Your task to perform on an android device: turn vacation reply on in the gmail app Image 0: 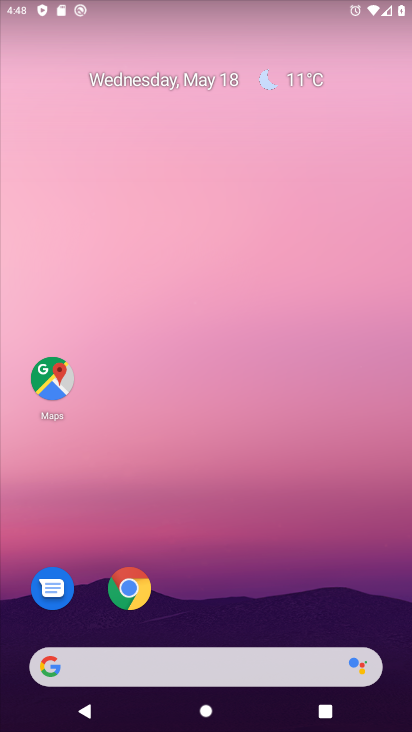
Step 0: drag from (234, 558) to (275, 68)
Your task to perform on an android device: turn vacation reply on in the gmail app Image 1: 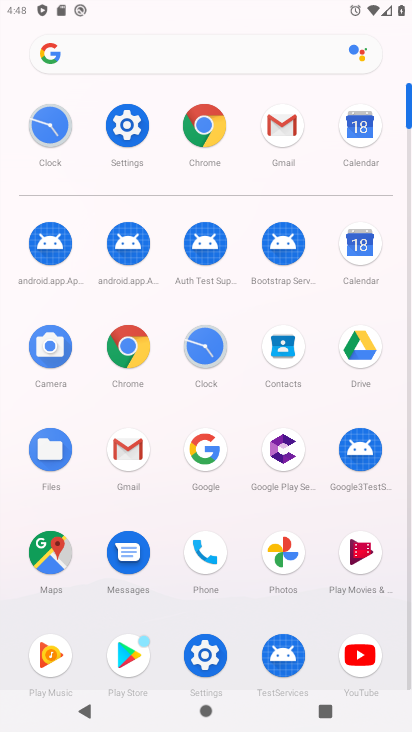
Step 1: click (122, 127)
Your task to perform on an android device: turn vacation reply on in the gmail app Image 2: 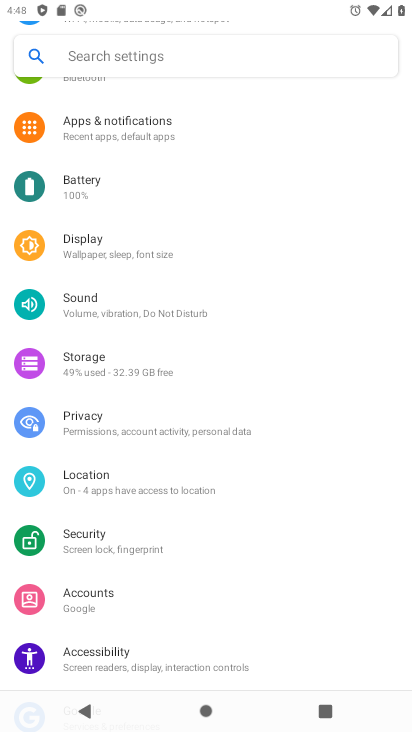
Step 2: drag from (182, 591) to (229, 223)
Your task to perform on an android device: turn vacation reply on in the gmail app Image 3: 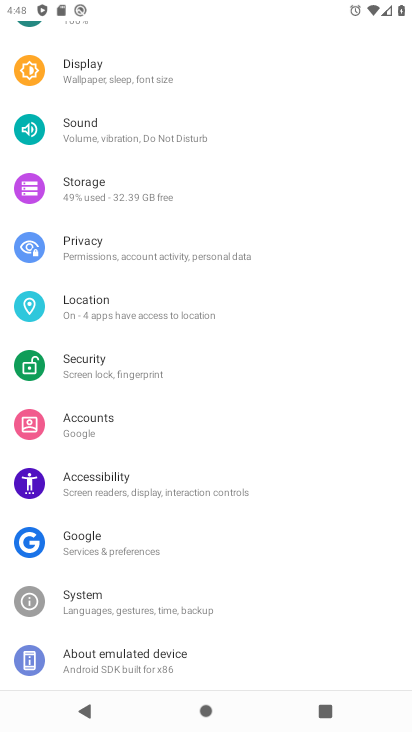
Step 3: drag from (223, 240) to (243, 611)
Your task to perform on an android device: turn vacation reply on in the gmail app Image 4: 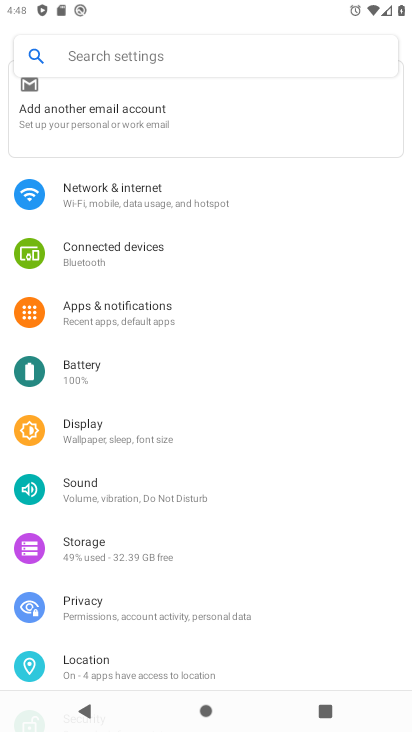
Step 4: press home button
Your task to perform on an android device: turn vacation reply on in the gmail app Image 5: 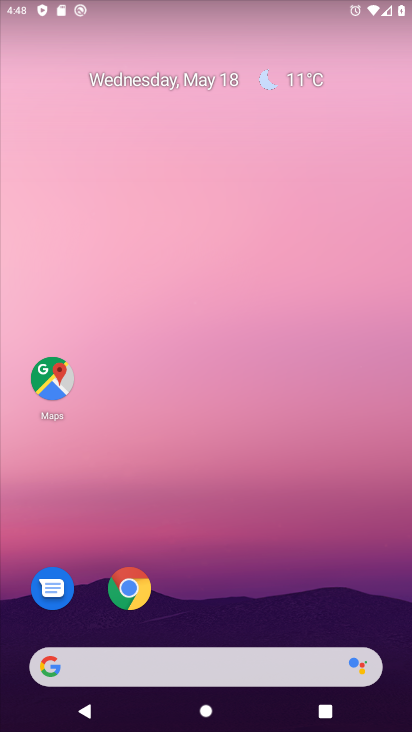
Step 5: drag from (217, 532) to (217, 84)
Your task to perform on an android device: turn vacation reply on in the gmail app Image 6: 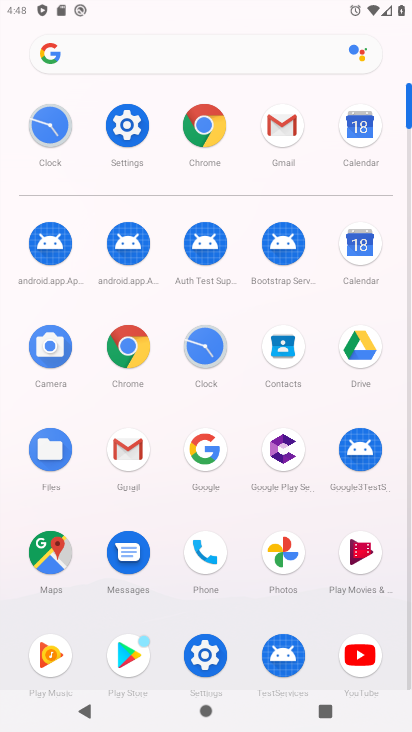
Step 6: click (266, 107)
Your task to perform on an android device: turn vacation reply on in the gmail app Image 7: 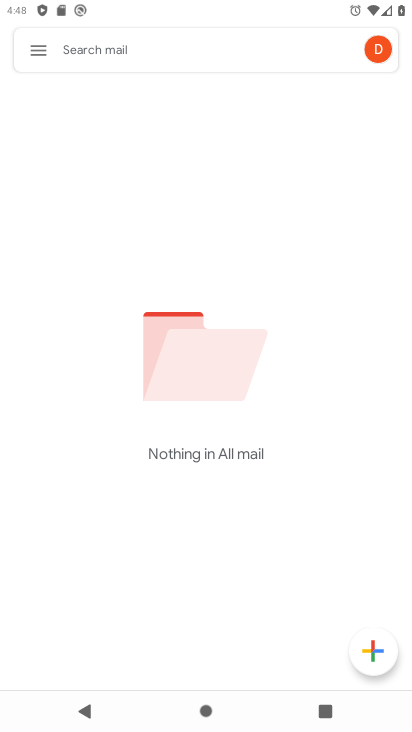
Step 7: click (44, 44)
Your task to perform on an android device: turn vacation reply on in the gmail app Image 8: 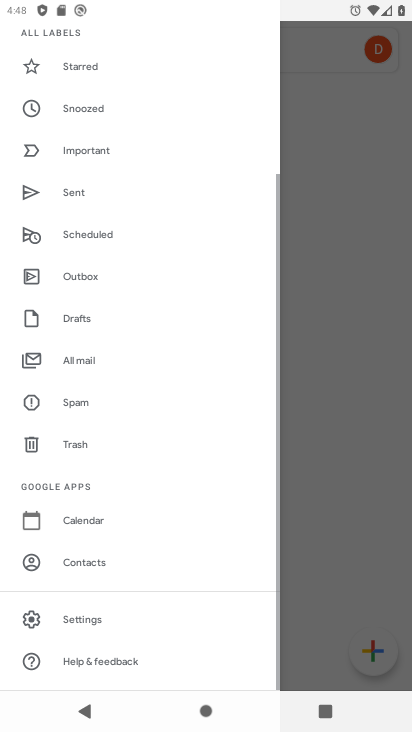
Step 8: drag from (210, 589) to (253, 190)
Your task to perform on an android device: turn vacation reply on in the gmail app Image 9: 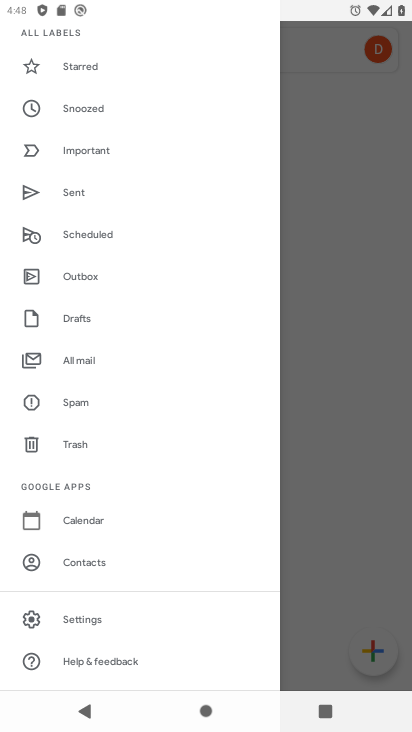
Step 9: click (110, 617)
Your task to perform on an android device: turn vacation reply on in the gmail app Image 10: 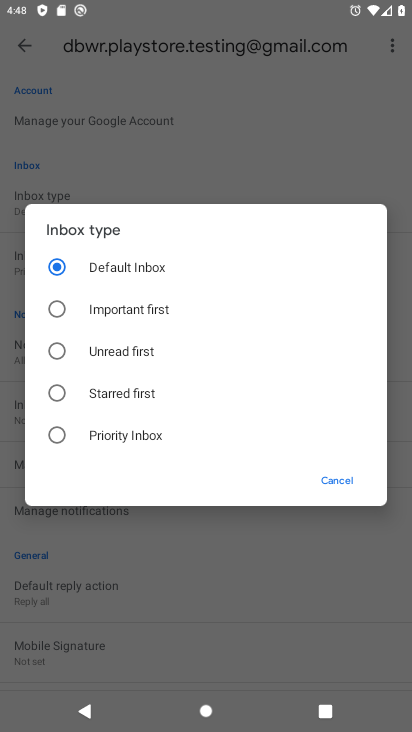
Step 10: click (329, 474)
Your task to perform on an android device: turn vacation reply on in the gmail app Image 11: 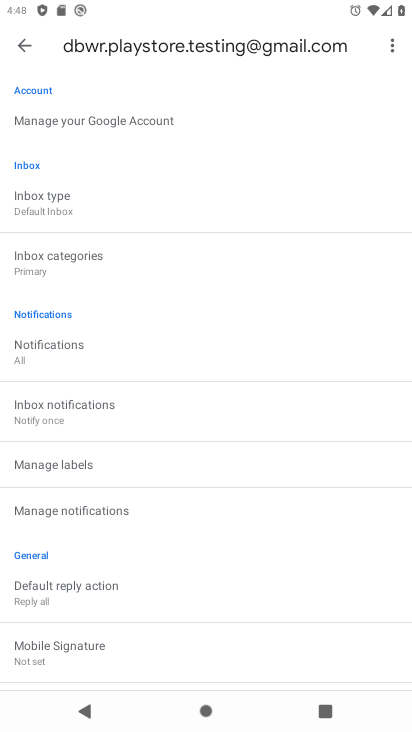
Step 11: drag from (263, 572) to (262, 36)
Your task to perform on an android device: turn vacation reply on in the gmail app Image 12: 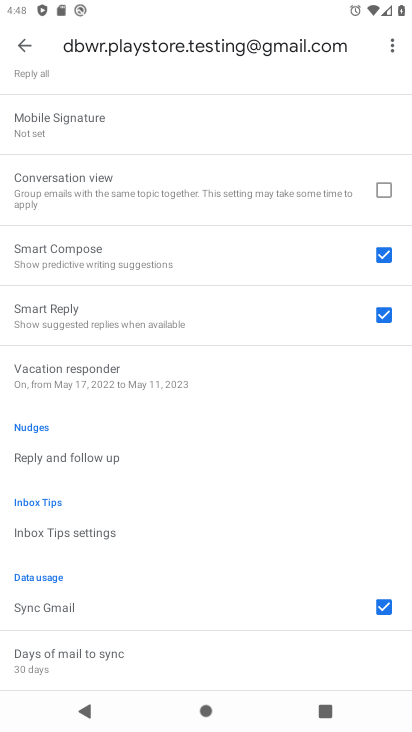
Step 12: click (167, 394)
Your task to perform on an android device: turn vacation reply on in the gmail app Image 13: 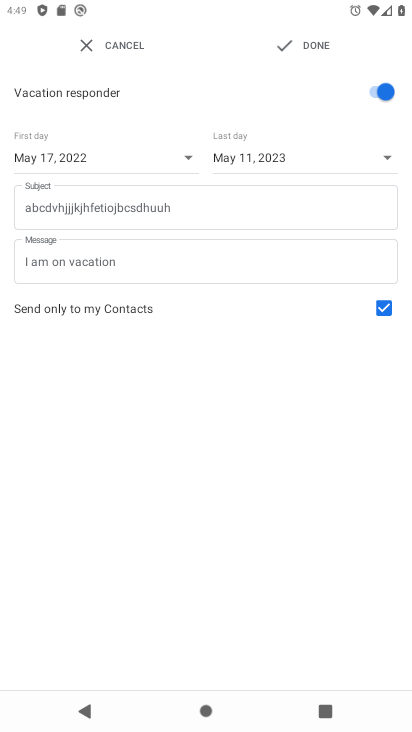
Step 13: task complete